Your task to perform on an android device: Open Chrome and go to settings Image 0: 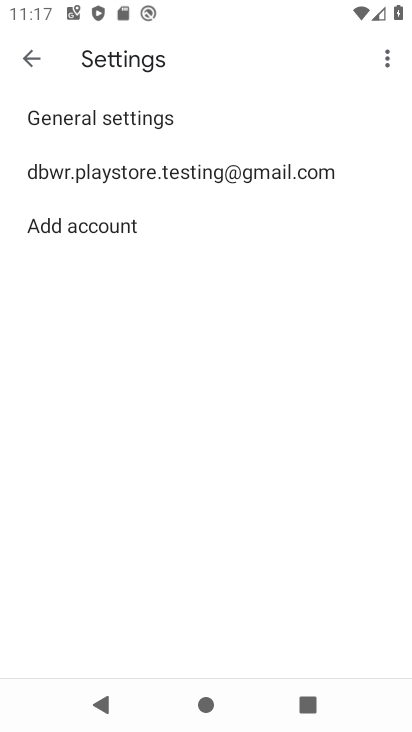
Step 0: press home button
Your task to perform on an android device: Open Chrome and go to settings Image 1: 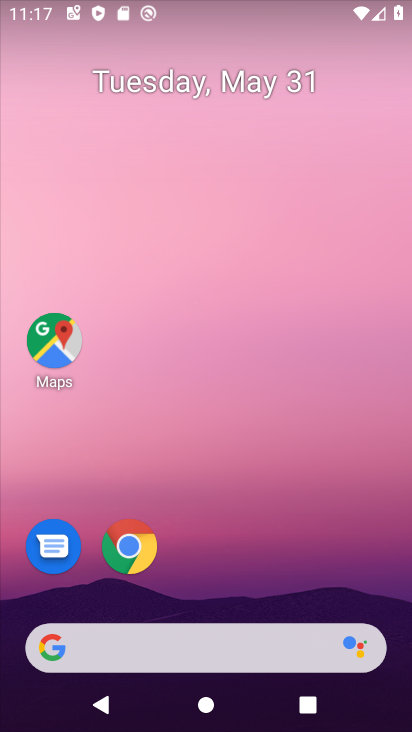
Step 1: click (134, 530)
Your task to perform on an android device: Open Chrome and go to settings Image 2: 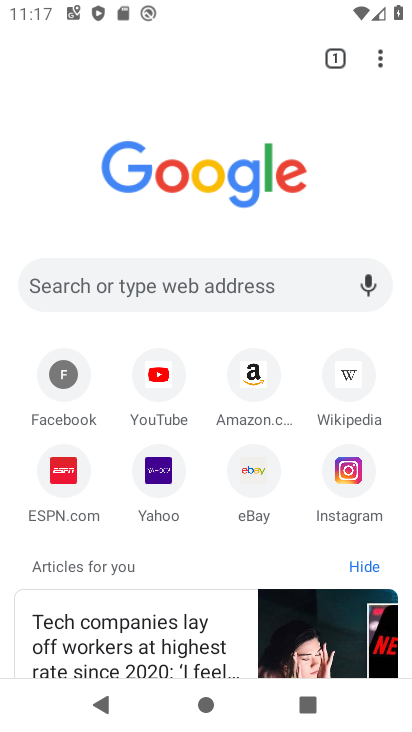
Step 2: click (380, 57)
Your task to perform on an android device: Open Chrome and go to settings Image 3: 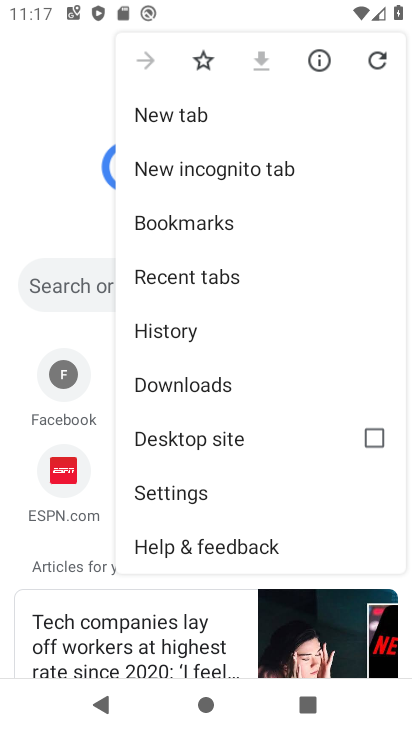
Step 3: click (262, 492)
Your task to perform on an android device: Open Chrome and go to settings Image 4: 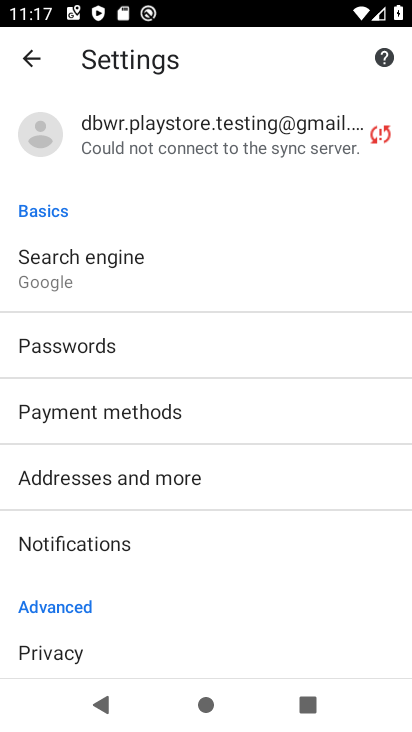
Step 4: task complete